Your task to perform on an android device: Go to ESPN.com Image 0: 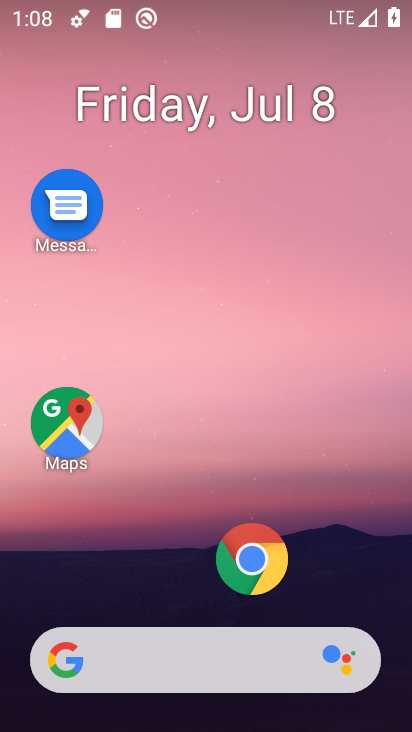
Step 0: click (251, 575)
Your task to perform on an android device: Go to ESPN.com Image 1: 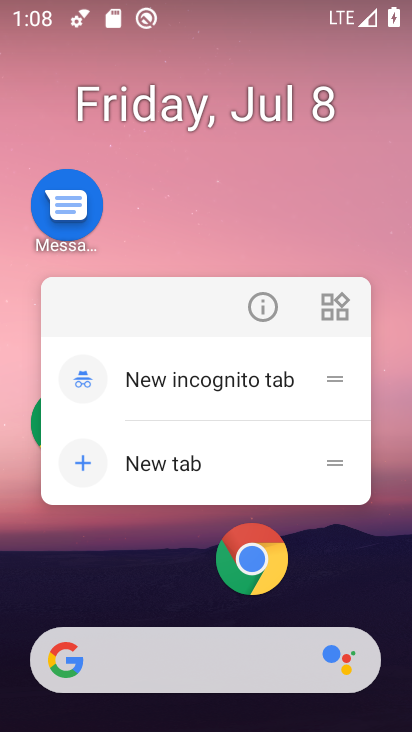
Step 1: click (250, 574)
Your task to perform on an android device: Go to ESPN.com Image 2: 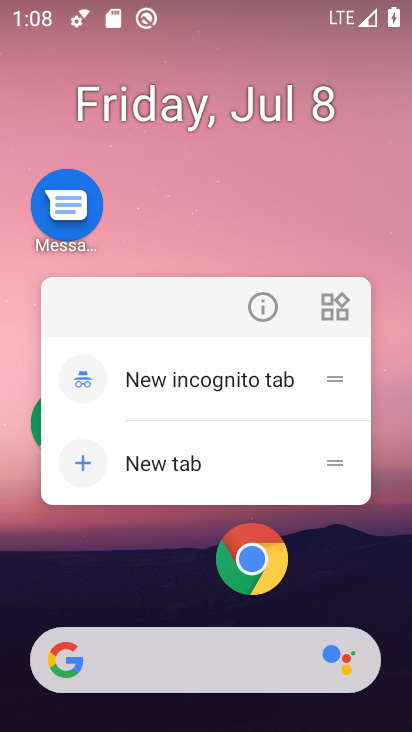
Step 2: click (260, 557)
Your task to perform on an android device: Go to ESPN.com Image 3: 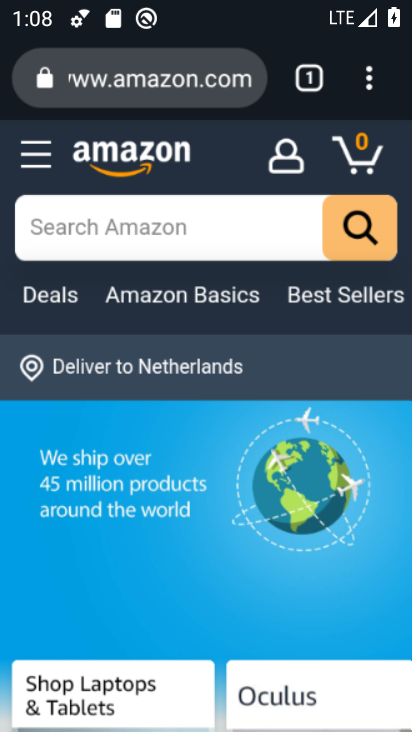
Step 3: click (311, 68)
Your task to perform on an android device: Go to ESPN.com Image 4: 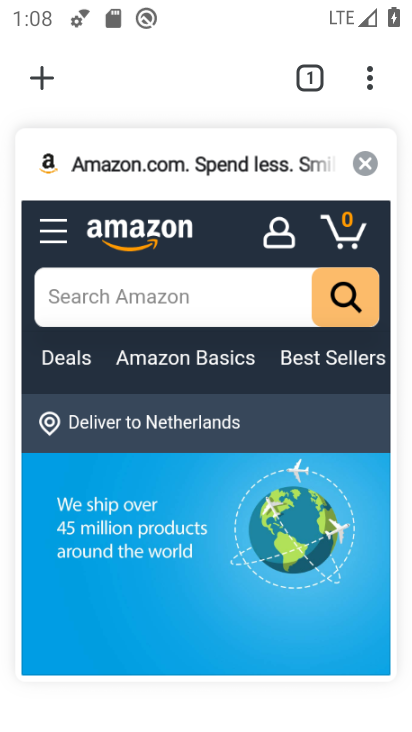
Step 4: click (45, 79)
Your task to perform on an android device: Go to ESPN.com Image 5: 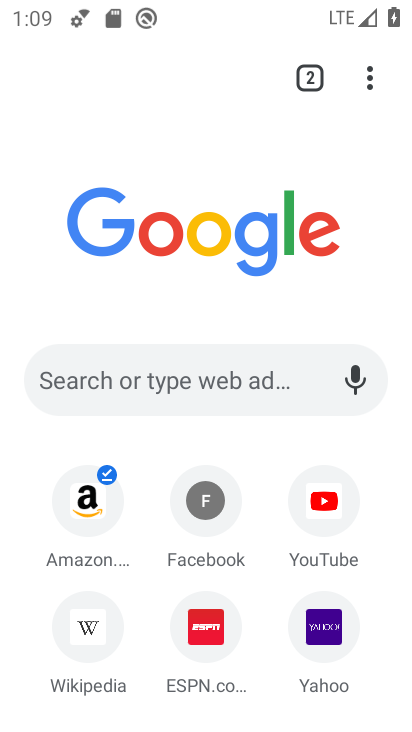
Step 5: click (219, 618)
Your task to perform on an android device: Go to ESPN.com Image 6: 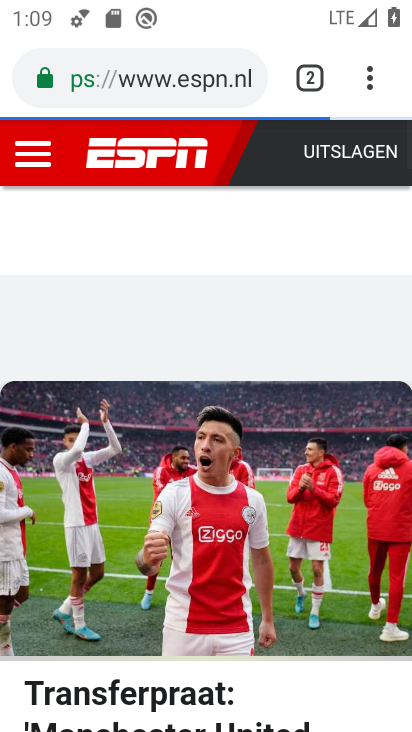
Step 6: task complete